Your task to perform on an android device: Open sound settings Image 0: 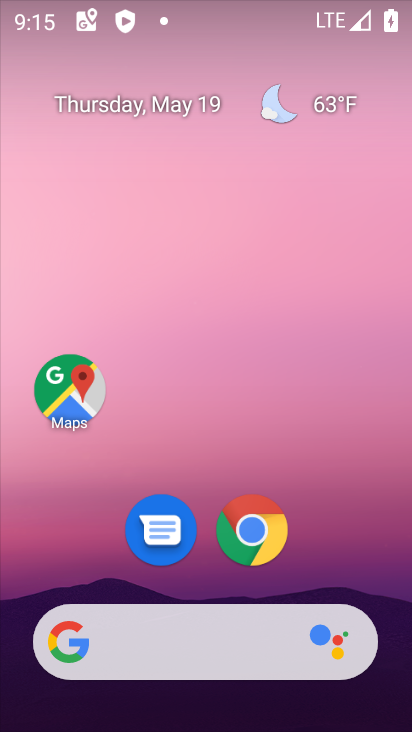
Step 0: drag from (372, 592) to (369, 291)
Your task to perform on an android device: Open sound settings Image 1: 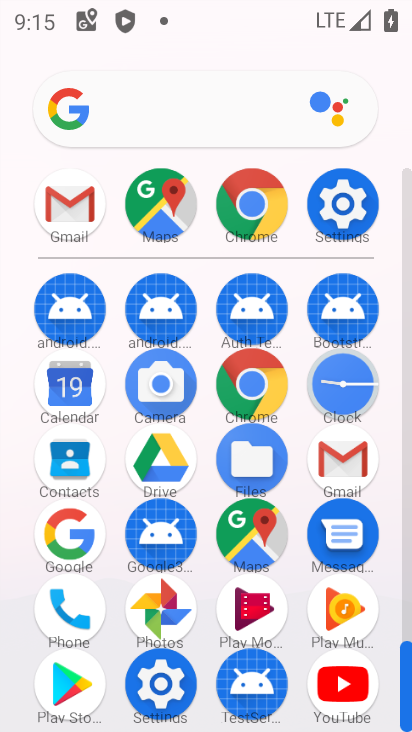
Step 1: click (368, 212)
Your task to perform on an android device: Open sound settings Image 2: 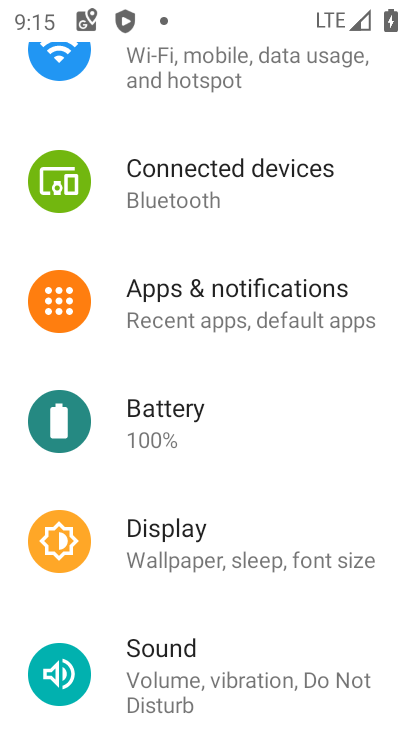
Step 2: drag from (233, 509) to (288, 293)
Your task to perform on an android device: Open sound settings Image 3: 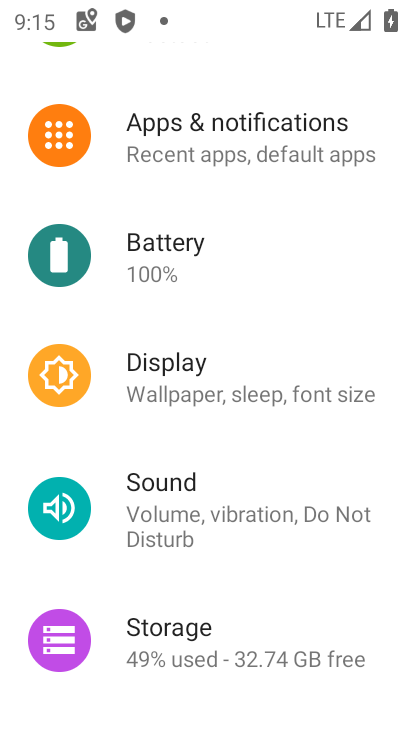
Step 3: click (211, 520)
Your task to perform on an android device: Open sound settings Image 4: 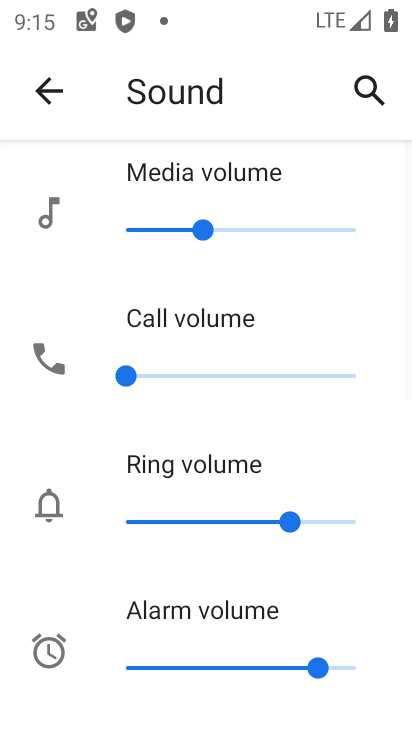
Step 4: task complete